Your task to perform on an android device: Search for Mexican restaurants on Maps Image 0: 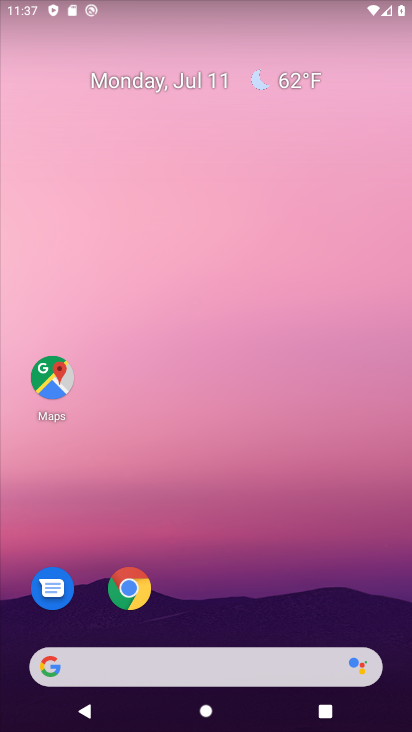
Step 0: click (41, 393)
Your task to perform on an android device: Search for Mexican restaurants on Maps Image 1: 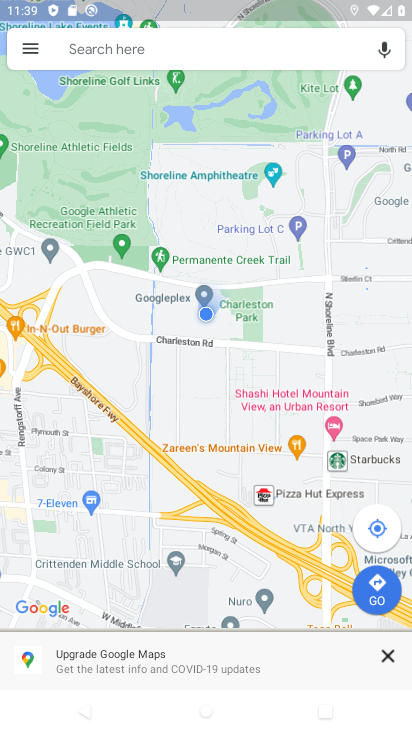
Step 1: click (145, 41)
Your task to perform on an android device: Search for Mexican restaurants on Maps Image 2: 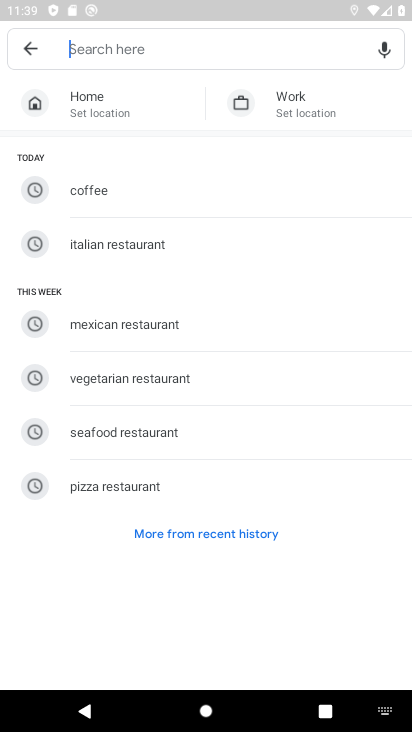
Step 2: type "Mexican restaurants"
Your task to perform on an android device: Search for Mexican restaurants on Maps Image 3: 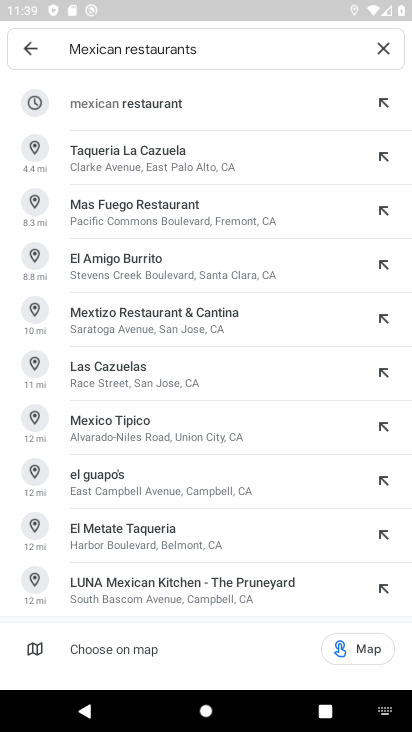
Step 3: click (155, 107)
Your task to perform on an android device: Search for Mexican restaurants on Maps Image 4: 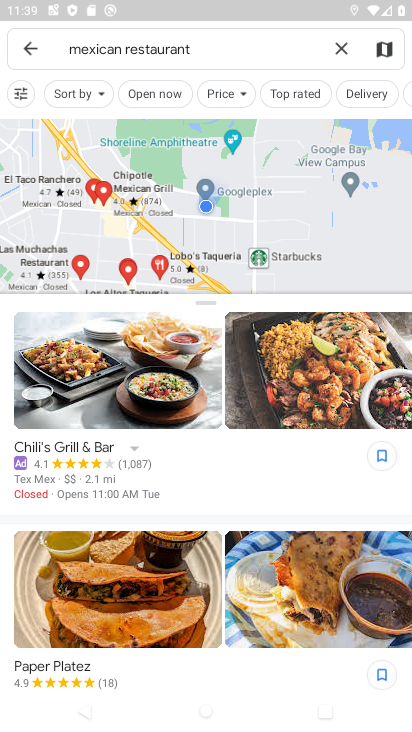
Step 4: task complete